Your task to perform on an android device: Open Wikipedia Image 0: 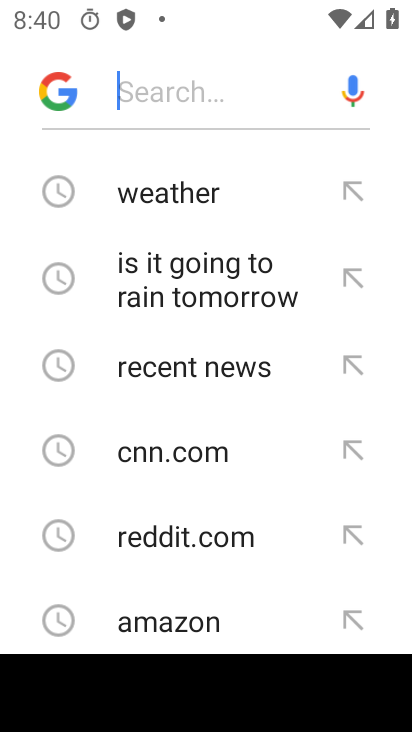
Step 0: press home button
Your task to perform on an android device: Open Wikipedia Image 1: 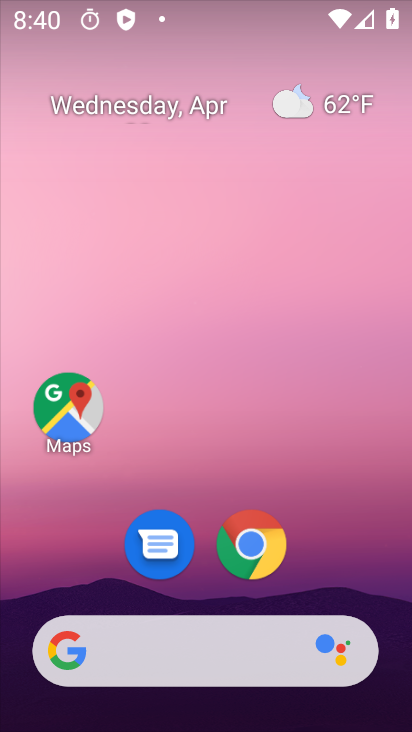
Step 1: click (262, 538)
Your task to perform on an android device: Open Wikipedia Image 2: 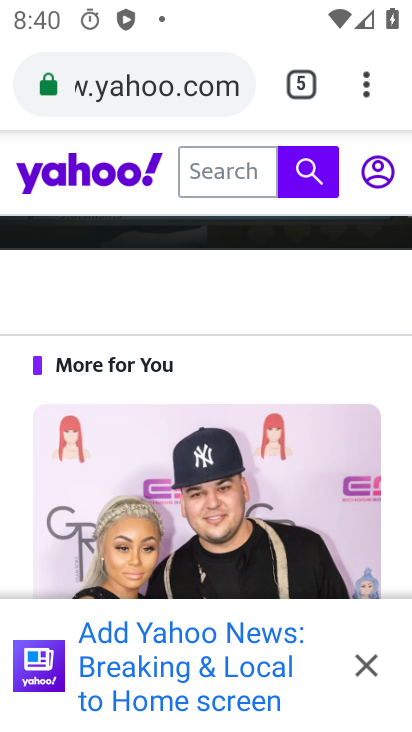
Step 2: click (298, 79)
Your task to perform on an android device: Open Wikipedia Image 3: 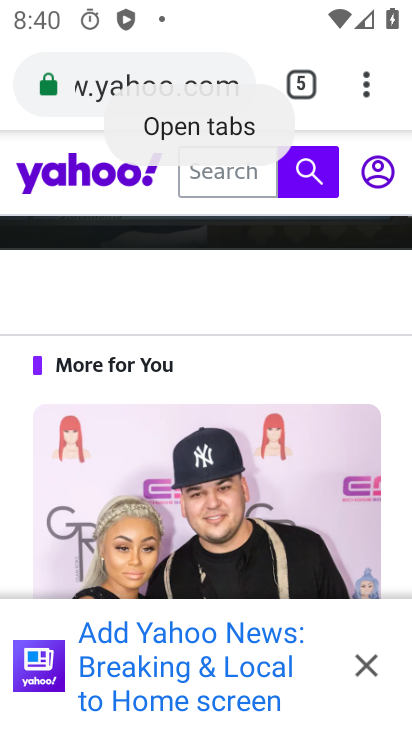
Step 3: click (309, 86)
Your task to perform on an android device: Open Wikipedia Image 4: 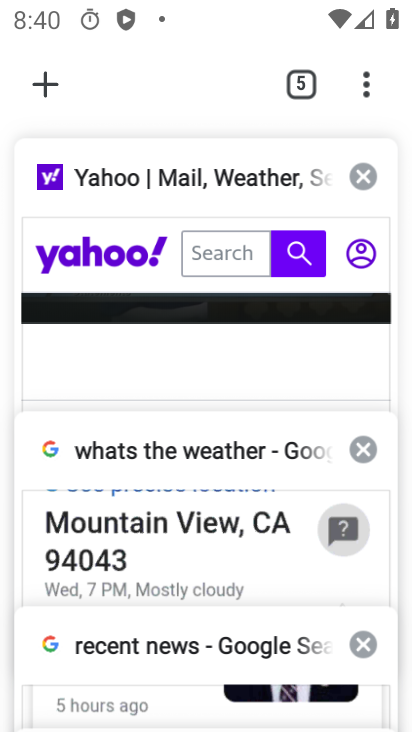
Step 4: click (49, 86)
Your task to perform on an android device: Open Wikipedia Image 5: 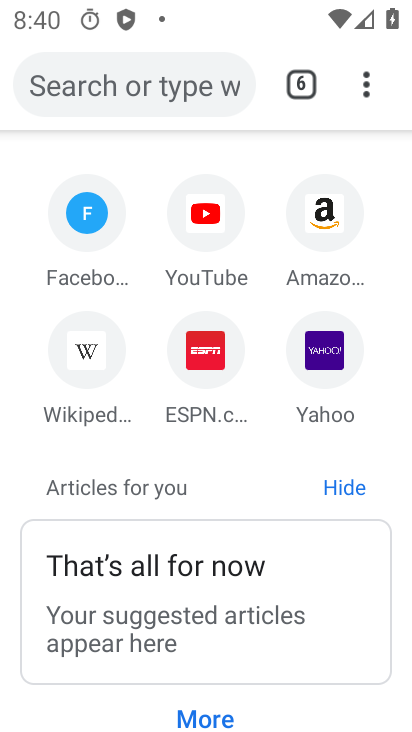
Step 5: click (83, 365)
Your task to perform on an android device: Open Wikipedia Image 6: 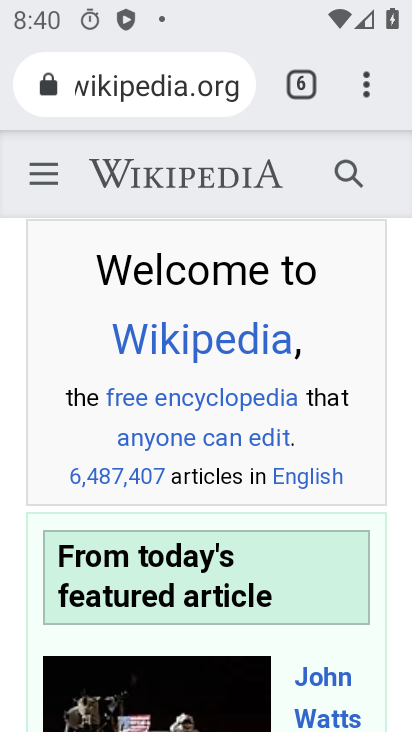
Step 6: task complete